Your task to perform on an android device: make emails show in primary in the gmail app Image 0: 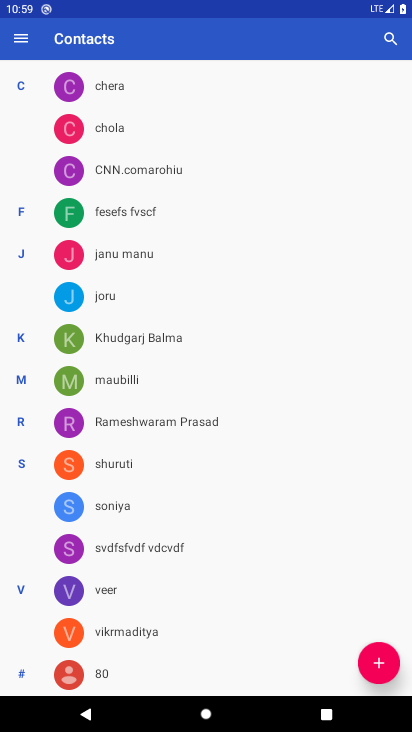
Step 0: press home button
Your task to perform on an android device: make emails show in primary in the gmail app Image 1: 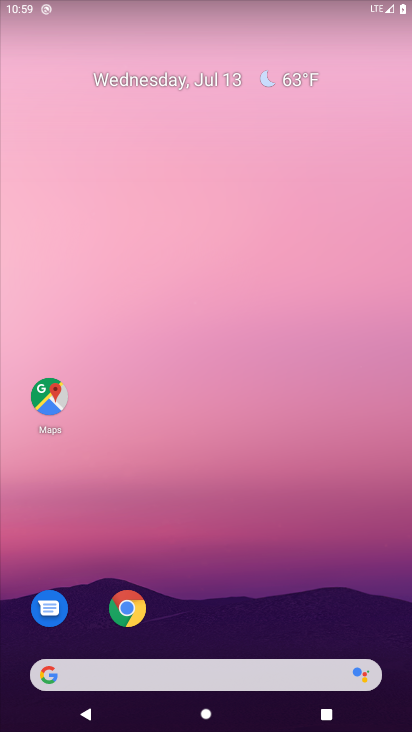
Step 1: drag from (313, 596) to (363, 100)
Your task to perform on an android device: make emails show in primary in the gmail app Image 2: 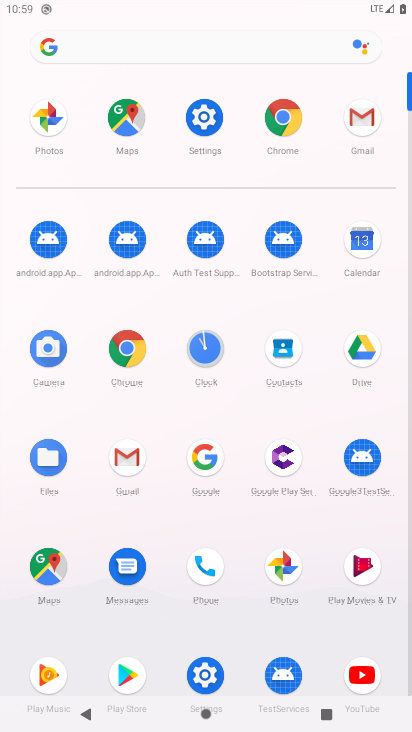
Step 2: click (123, 453)
Your task to perform on an android device: make emails show in primary in the gmail app Image 3: 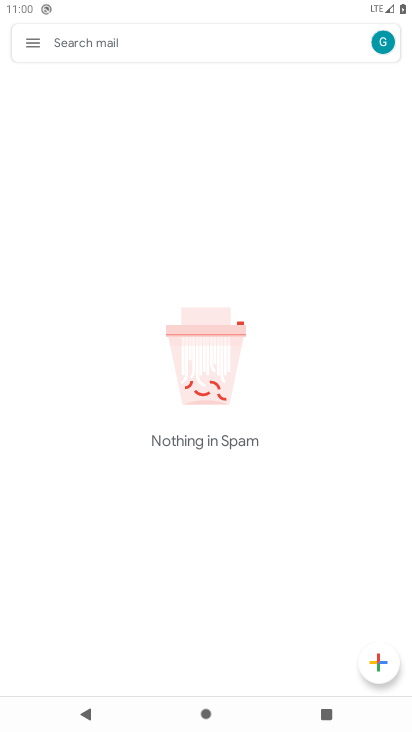
Step 3: click (28, 34)
Your task to perform on an android device: make emails show in primary in the gmail app Image 4: 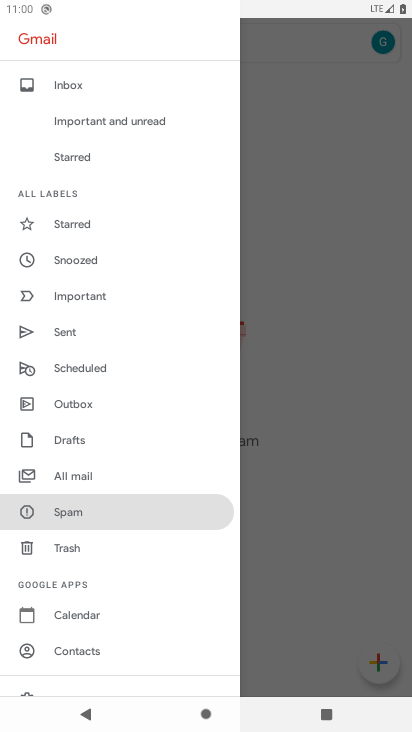
Step 4: click (70, 85)
Your task to perform on an android device: make emails show in primary in the gmail app Image 5: 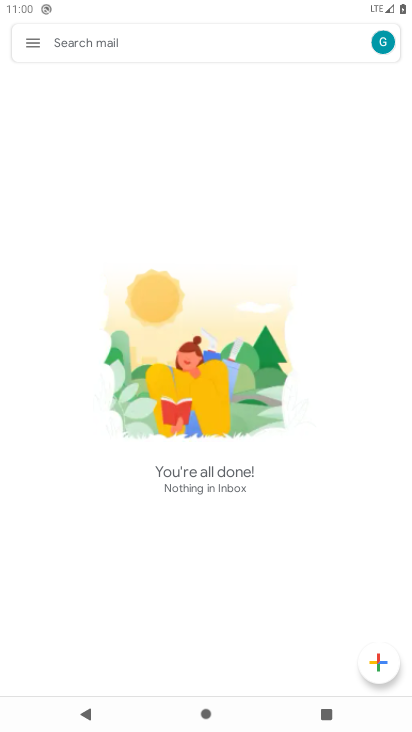
Step 5: task complete